Your task to perform on an android device: Set the phone to "Do not disturb". Image 0: 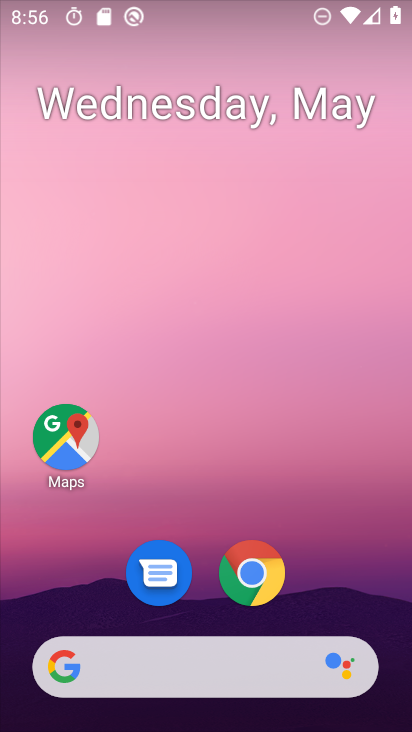
Step 0: press home button
Your task to perform on an android device: Set the phone to "Do not disturb". Image 1: 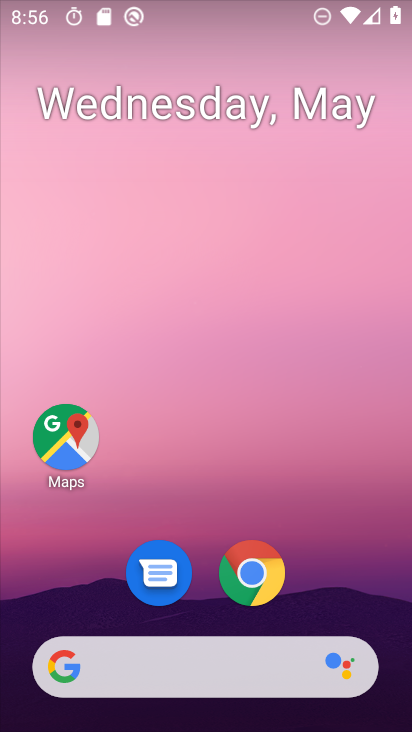
Step 1: drag from (398, 709) to (371, 276)
Your task to perform on an android device: Set the phone to "Do not disturb". Image 2: 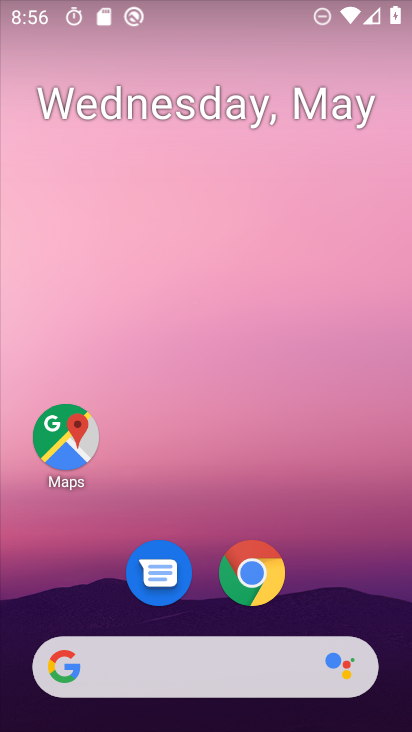
Step 2: click (371, 158)
Your task to perform on an android device: Set the phone to "Do not disturb". Image 3: 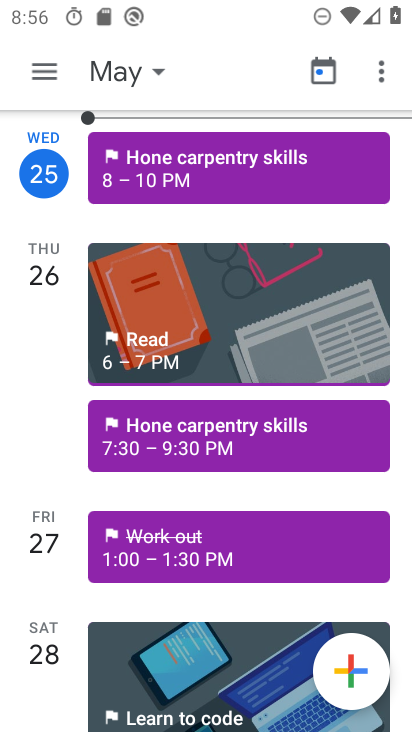
Step 3: drag from (396, 678) to (402, 510)
Your task to perform on an android device: Set the phone to "Do not disturb". Image 4: 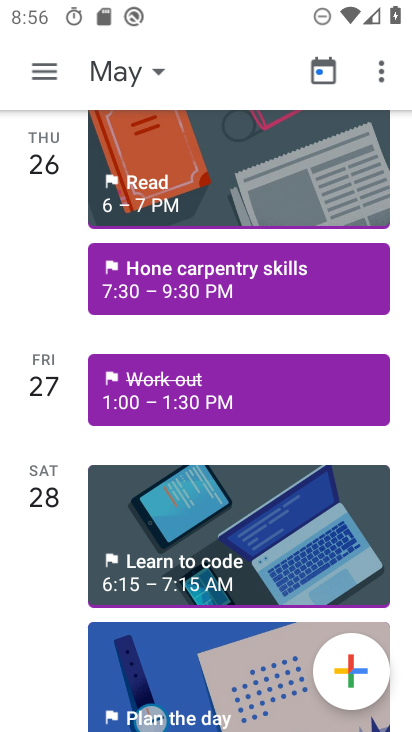
Step 4: drag from (30, 209) to (24, 548)
Your task to perform on an android device: Set the phone to "Do not disturb". Image 5: 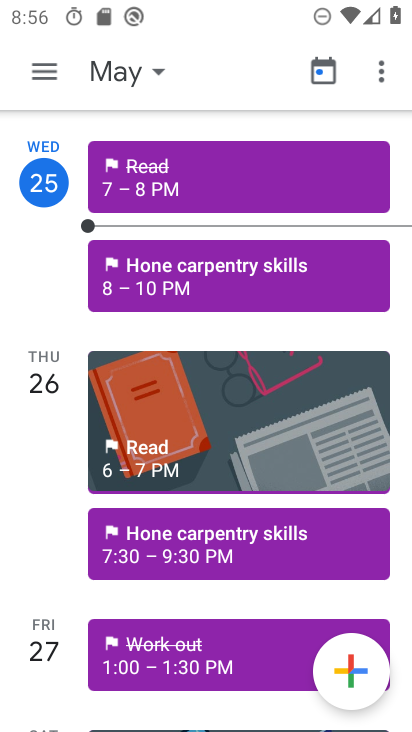
Step 5: press home button
Your task to perform on an android device: Set the phone to "Do not disturb". Image 6: 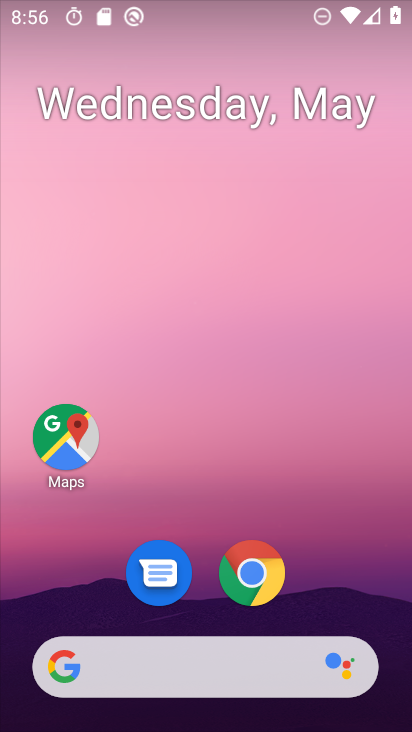
Step 6: drag from (381, 703) to (366, 249)
Your task to perform on an android device: Set the phone to "Do not disturb". Image 7: 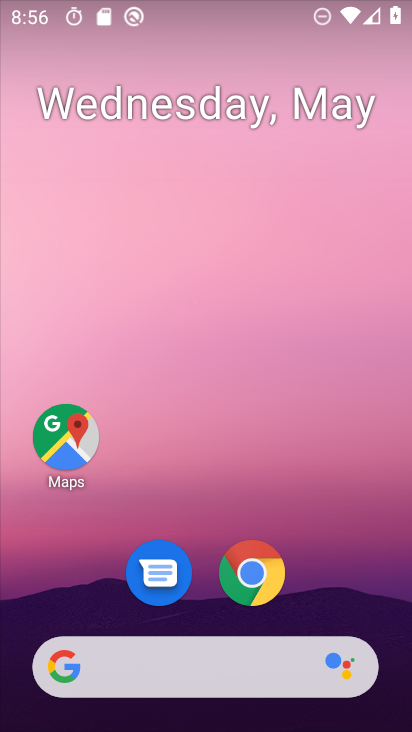
Step 7: drag from (393, 688) to (388, 264)
Your task to perform on an android device: Set the phone to "Do not disturb". Image 8: 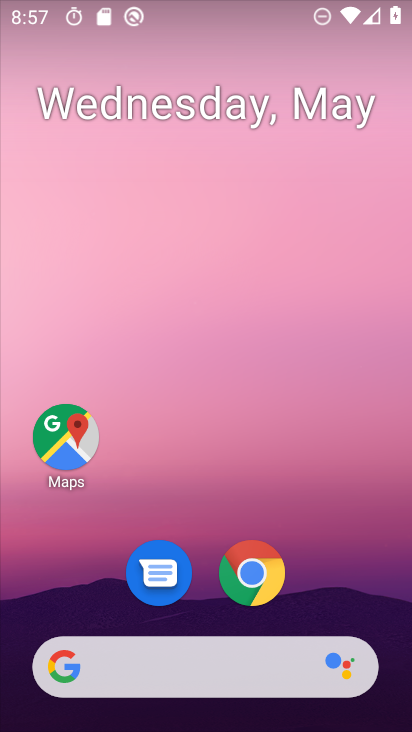
Step 8: drag from (394, 688) to (368, 115)
Your task to perform on an android device: Set the phone to "Do not disturb". Image 9: 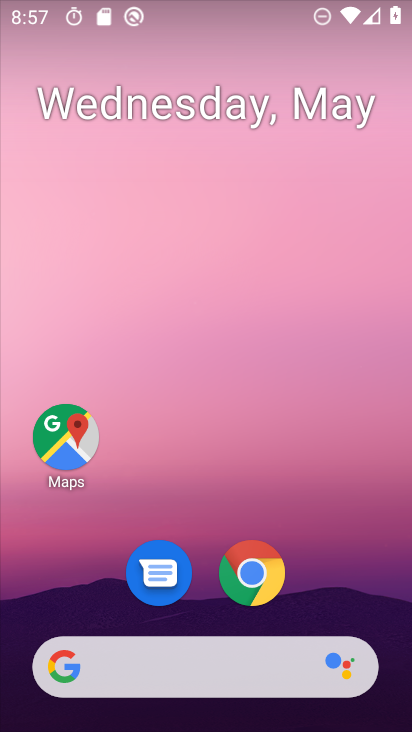
Step 9: drag from (388, 657) to (361, 117)
Your task to perform on an android device: Set the phone to "Do not disturb". Image 10: 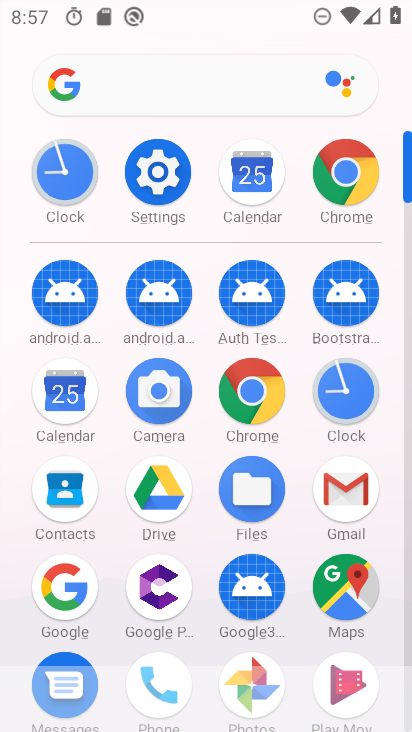
Step 10: click (161, 171)
Your task to perform on an android device: Set the phone to "Do not disturb". Image 11: 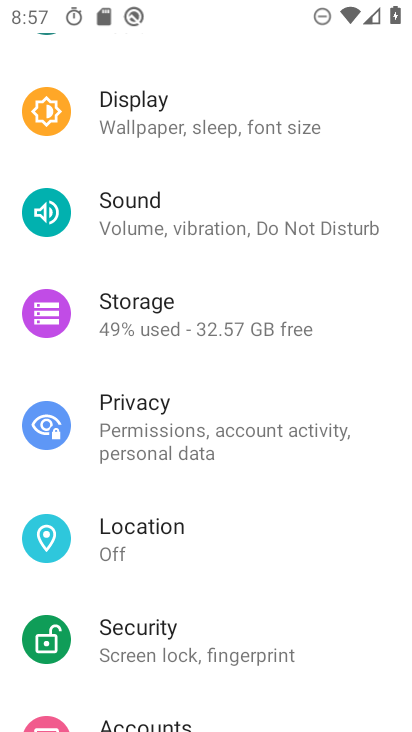
Step 11: drag from (282, 717) to (257, 407)
Your task to perform on an android device: Set the phone to "Do not disturb". Image 12: 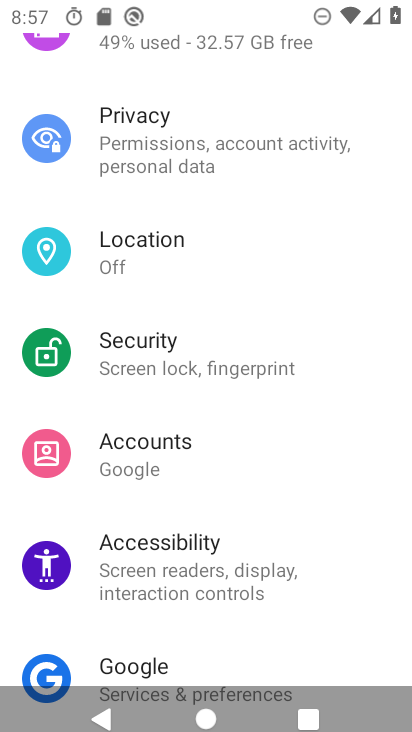
Step 12: drag from (211, 89) to (246, 506)
Your task to perform on an android device: Set the phone to "Do not disturb". Image 13: 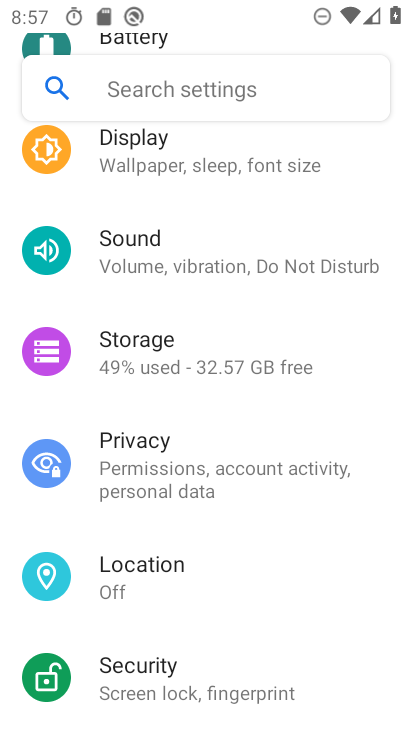
Step 13: click (183, 256)
Your task to perform on an android device: Set the phone to "Do not disturb". Image 14: 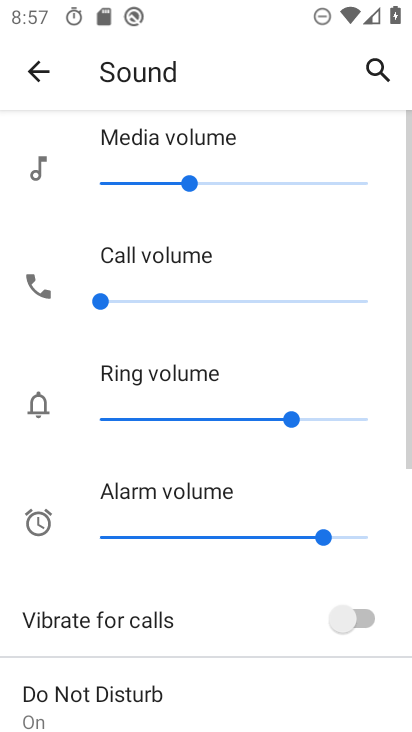
Step 14: task complete